Your task to perform on an android device: change your default location settings in chrome Image 0: 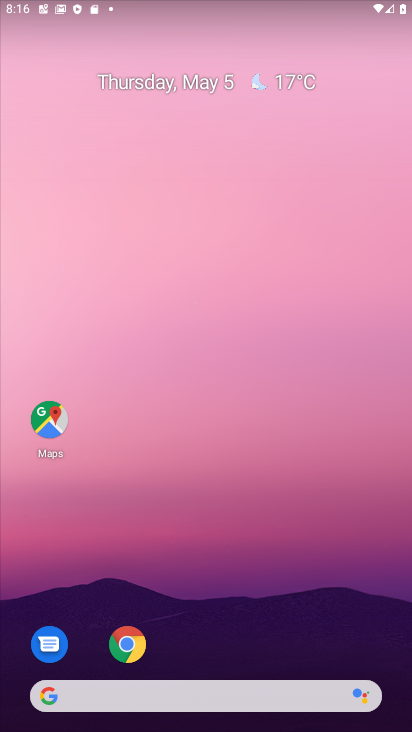
Step 0: drag from (261, 636) to (214, 109)
Your task to perform on an android device: change your default location settings in chrome Image 1: 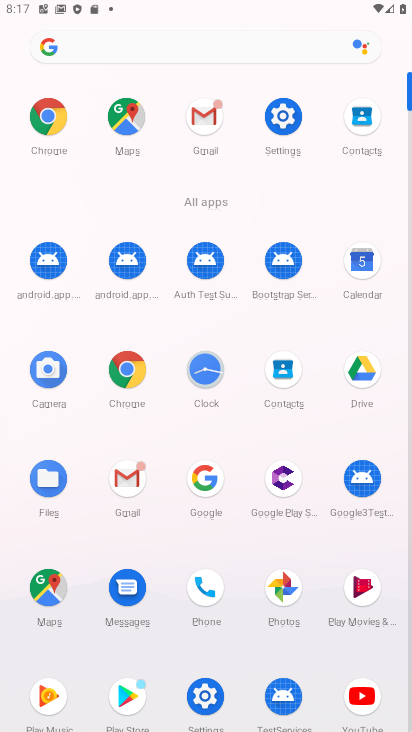
Step 1: click (49, 107)
Your task to perform on an android device: change your default location settings in chrome Image 2: 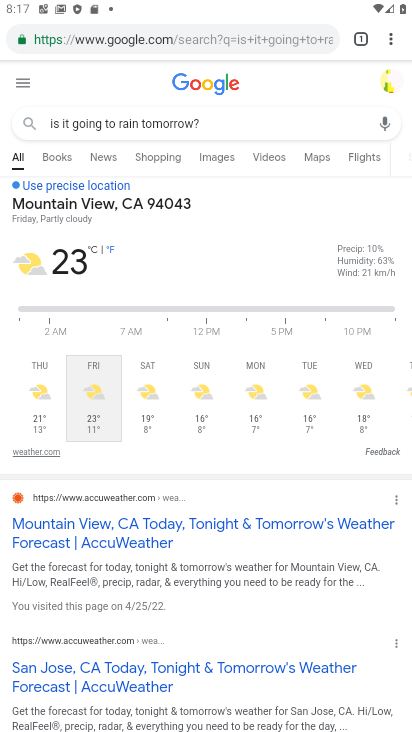
Step 2: click (388, 41)
Your task to perform on an android device: change your default location settings in chrome Image 3: 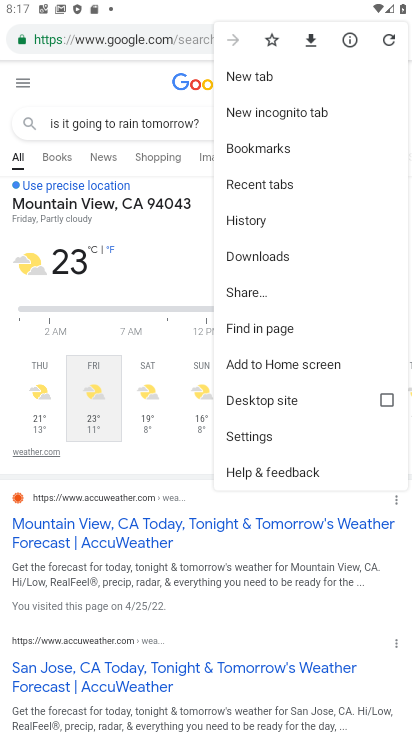
Step 3: click (295, 446)
Your task to perform on an android device: change your default location settings in chrome Image 4: 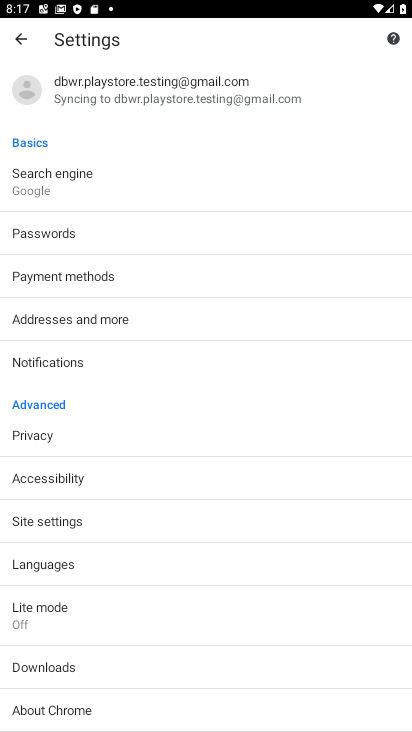
Step 4: drag from (309, 650) to (234, 344)
Your task to perform on an android device: change your default location settings in chrome Image 5: 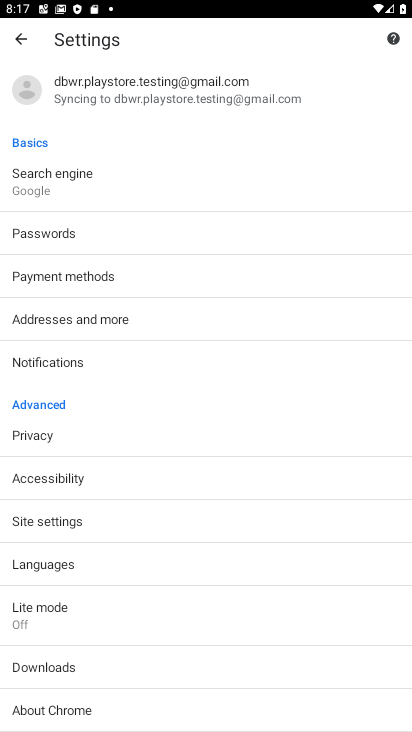
Step 5: click (204, 513)
Your task to perform on an android device: change your default location settings in chrome Image 6: 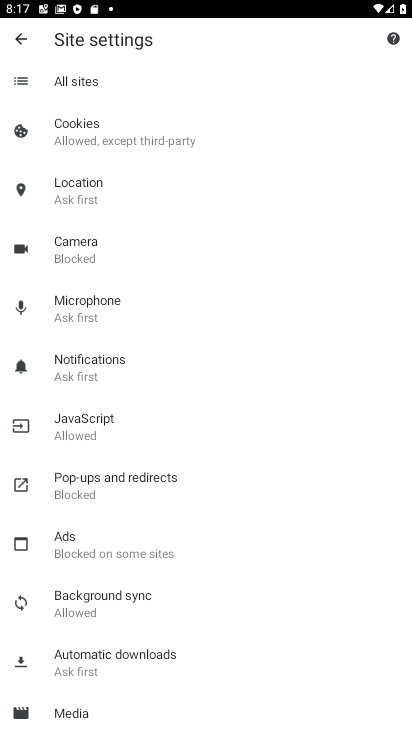
Step 6: click (144, 199)
Your task to perform on an android device: change your default location settings in chrome Image 7: 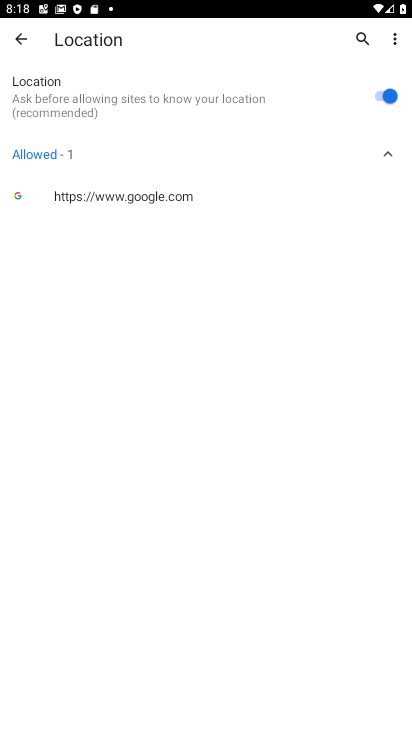
Step 7: task complete